Your task to perform on an android device: Open the Play Movies app and select the watchlist tab. Image 0: 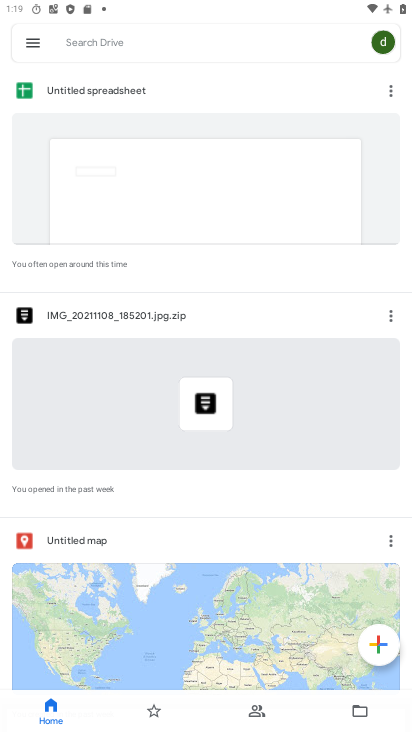
Step 0: press home button
Your task to perform on an android device: Open the Play Movies app and select the watchlist tab. Image 1: 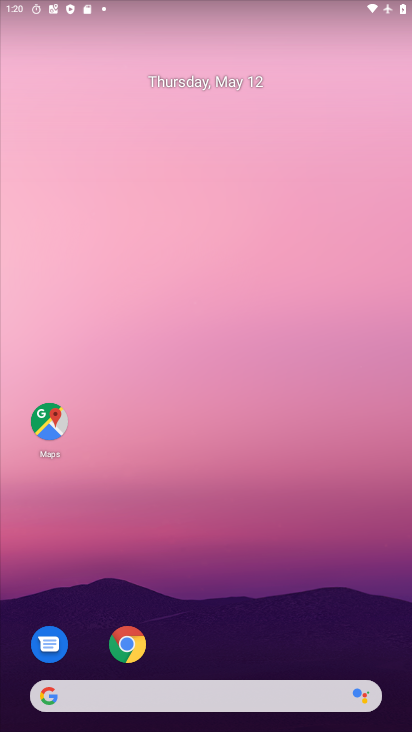
Step 1: drag from (272, 596) to (194, 63)
Your task to perform on an android device: Open the Play Movies app and select the watchlist tab. Image 2: 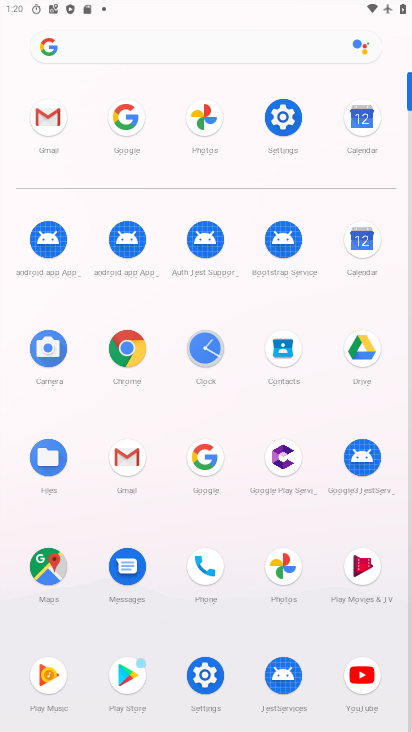
Step 2: click (358, 573)
Your task to perform on an android device: Open the Play Movies app and select the watchlist tab. Image 3: 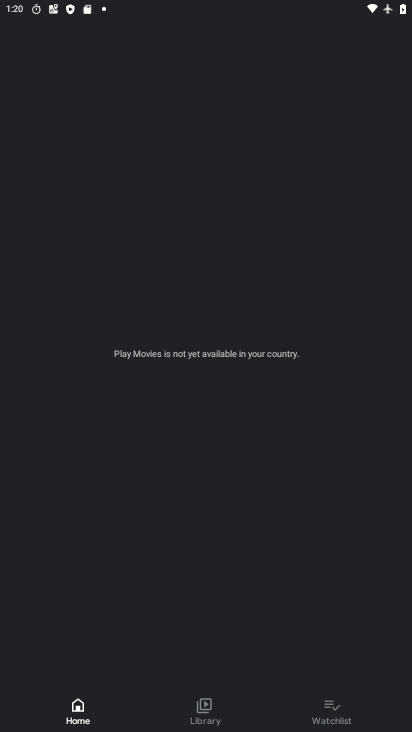
Step 3: click (342, 711)
Your task to perform on an android device: Open the Play Movies app and select the watchlist tab. Image 4: 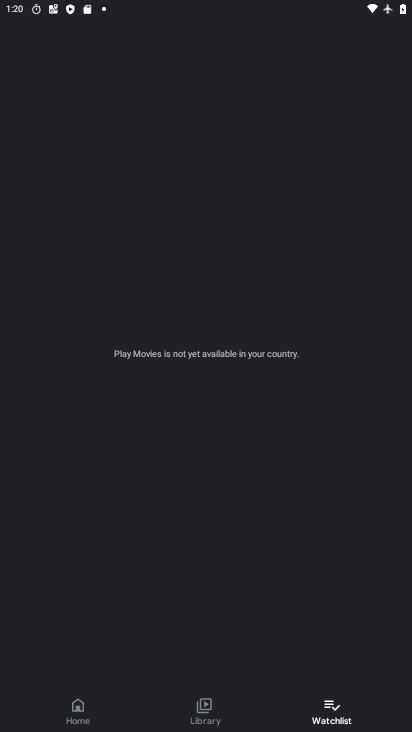
Step 4: task complete